Your task to perform on an android device: install app "Google Chrome" Image 0: 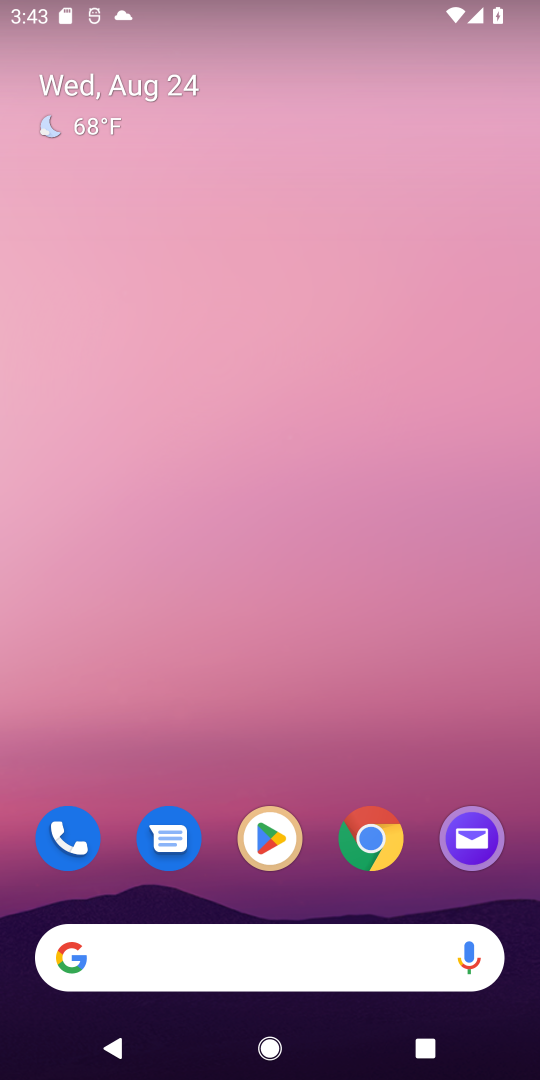
Step 0: click (378, 850)
Your task to perform on an android device: install app "Google Chrome" Image 1: 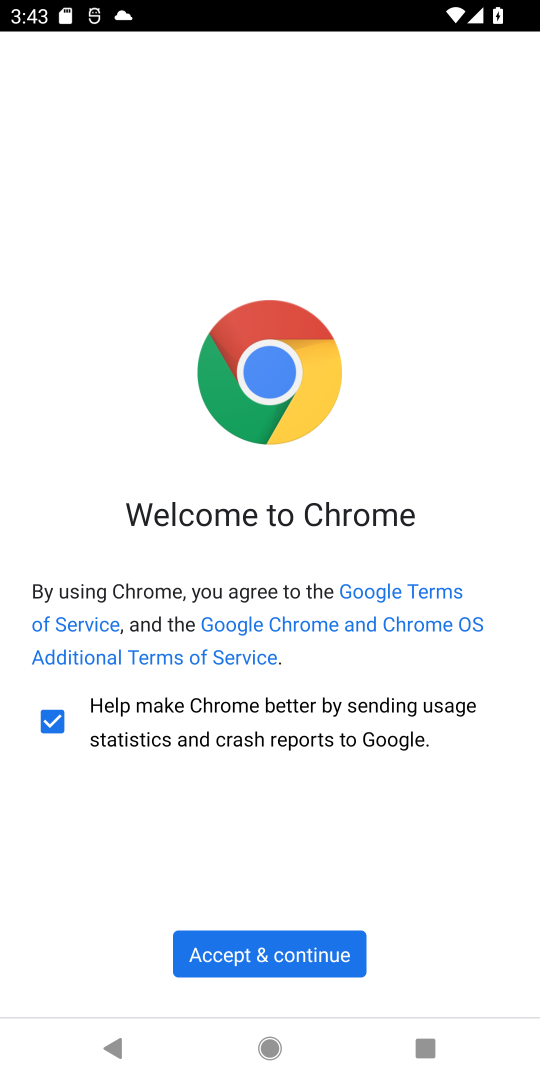
Step 1: click (278, 954)
Your task to perform on an android device: install app "Google Chrome" Image 2: 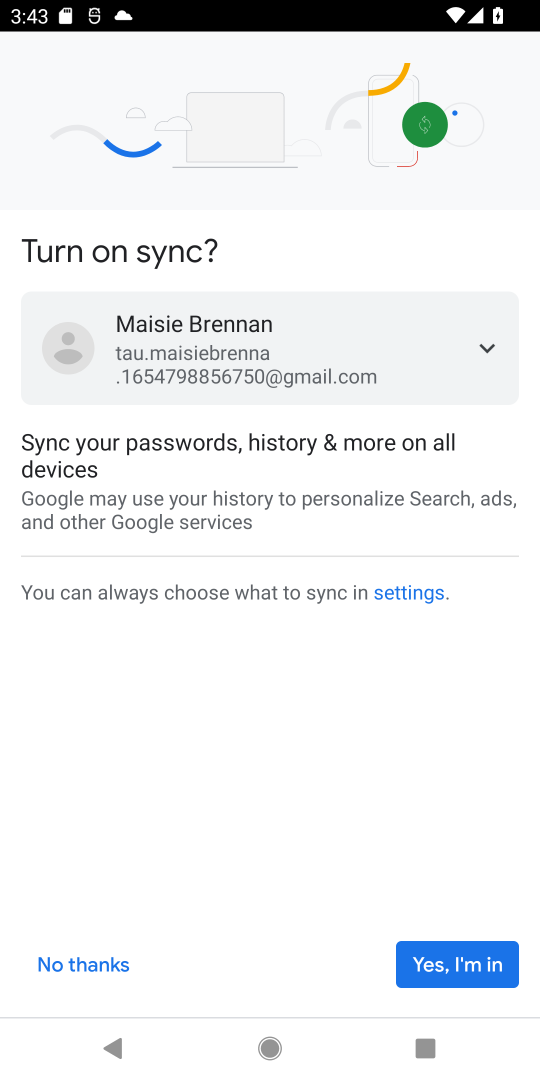
Step 2: click (439, 983)
Your task to perform on an android device: install app "Google Chrome" Image 3: 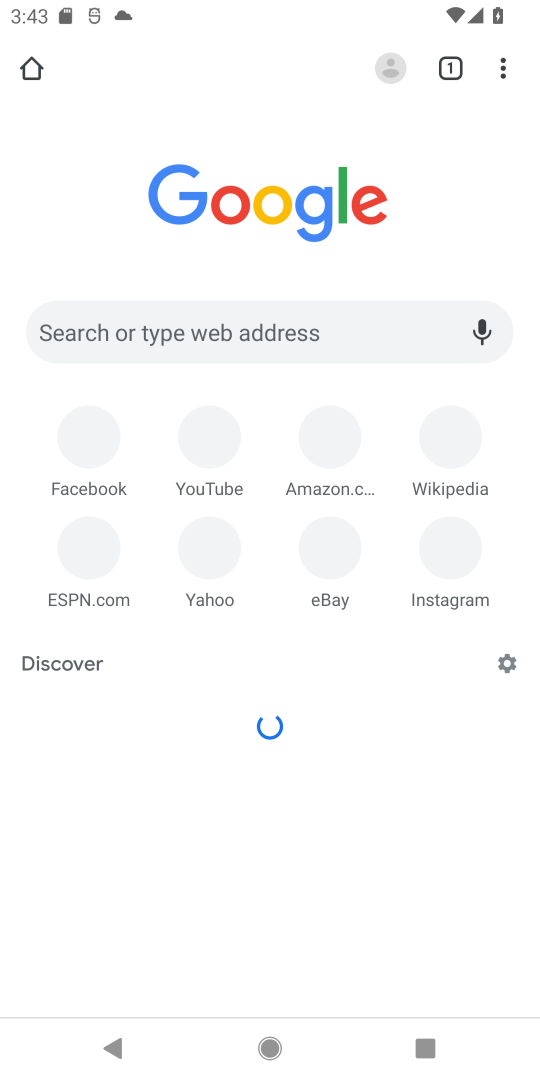
Step 3: task complete